Your task to perform on an android device: Check the news Image 0: 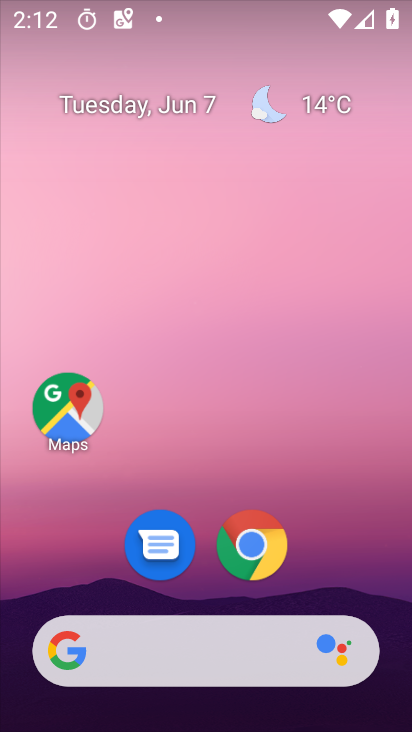
Step 0: drag from (347, 470) to (280, 2)
Your task to perform on an android device: Check the news Image 1: 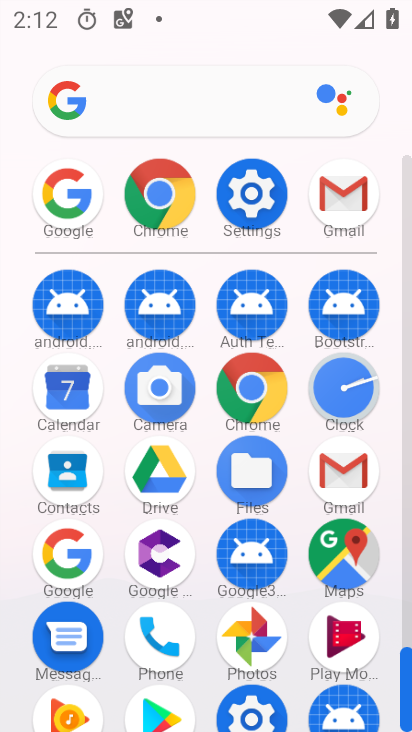
Step 1: click (70, 564)
Your task to perform on an android device: Check the news Image 2: 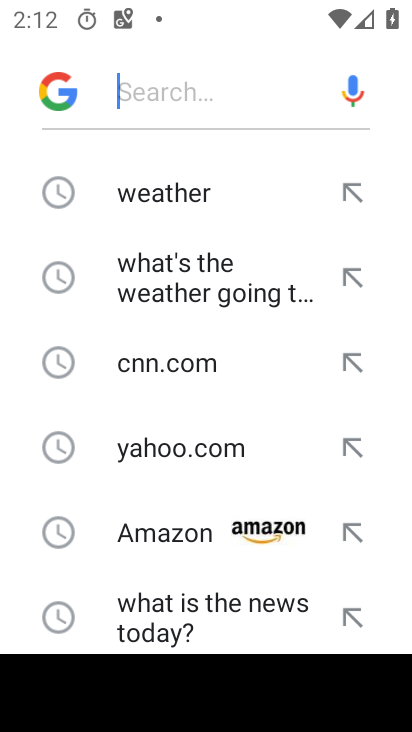
Step 2: drag from (205, 465) to (220, 139)
Your task to perform on an android device: Check the news Image 3: 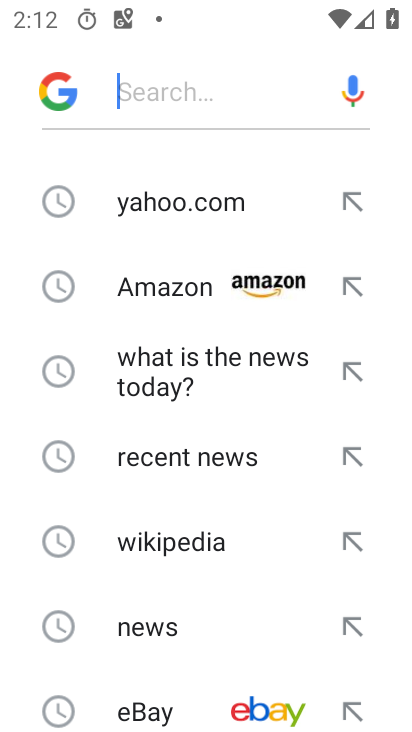
Step 3: click (226, 449)
Your task to perform on an android device: Check the news Image 4: 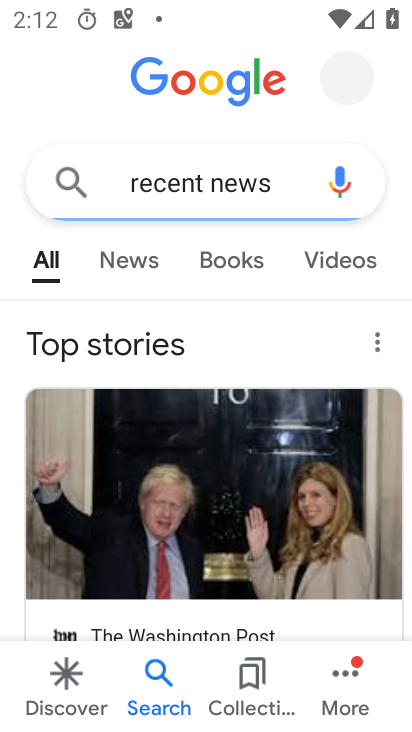
Step 4: task complete